Your task to perform on an android device: Open the phone app and click the voicemail tab. Image 0: 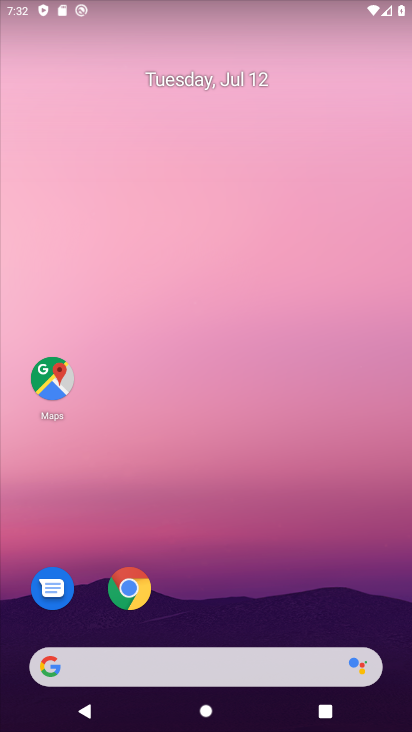
Step 0: drag from (247, 604) to (286, 14)
Your task to perform on an android device: Open the phone app and click the voicemail tab. Image 1: 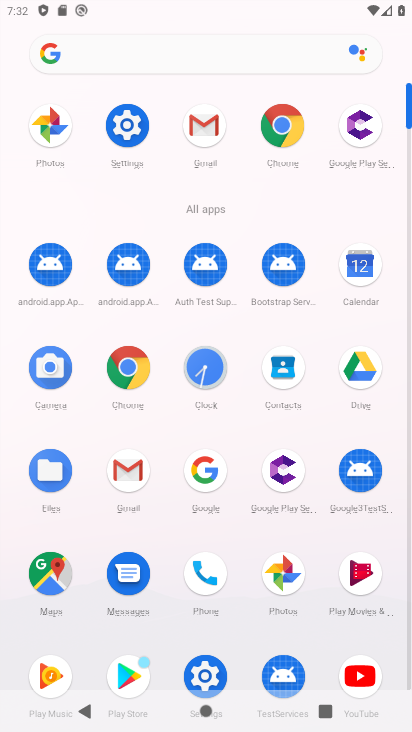
Step 1: click (203, 580)
Your task to perform on an android device: Open the phone app and click the voicemail tab. Image 2: 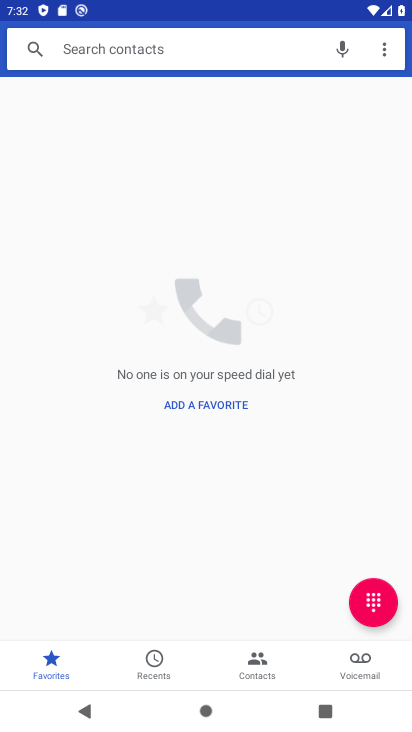
Step 2: click (357, 655)
Your task to perform on an android device: Open the phone app and click the voicemail tab. Image 3: 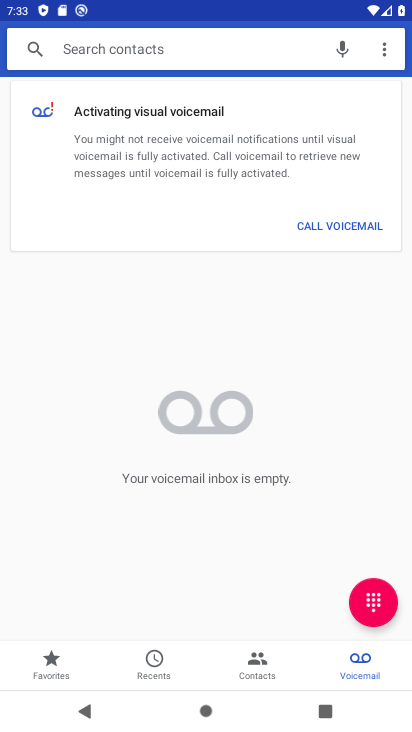
Step 3: task complete